Your task to perform on an android device: turn on airplane mode Image 0: 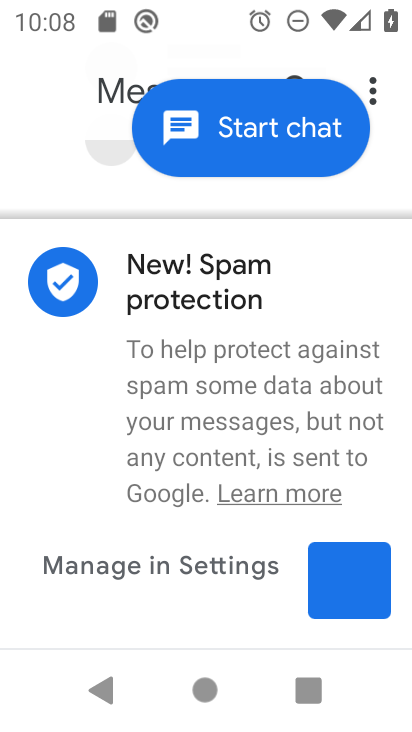
Step 0: press home button
Your task to perform on an android device: turn on airplane mode Image 1: 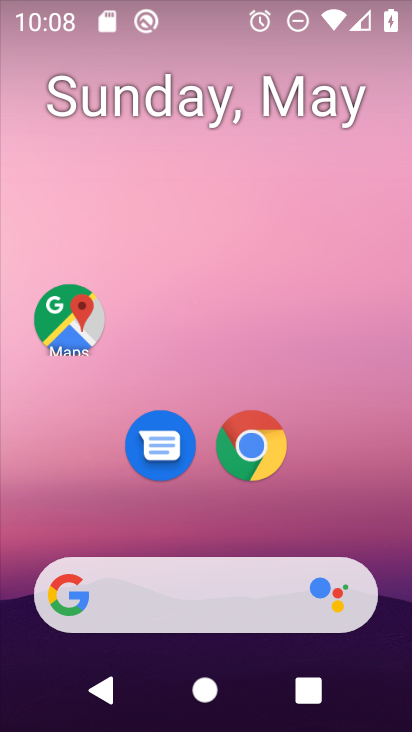
Step 1: drag from (218, 555) to (260, 212)
Your task to perform on an android device: turn on airplane mode Image 2: 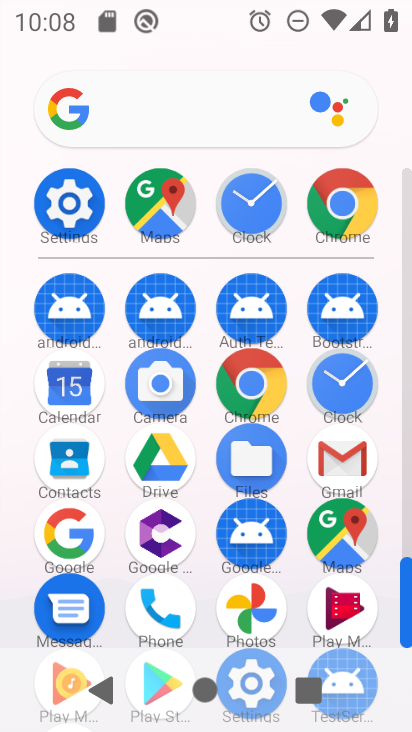
Step 2: click (72, 221)
Your task to perform on an android device: turn on airplane mode Image 3: 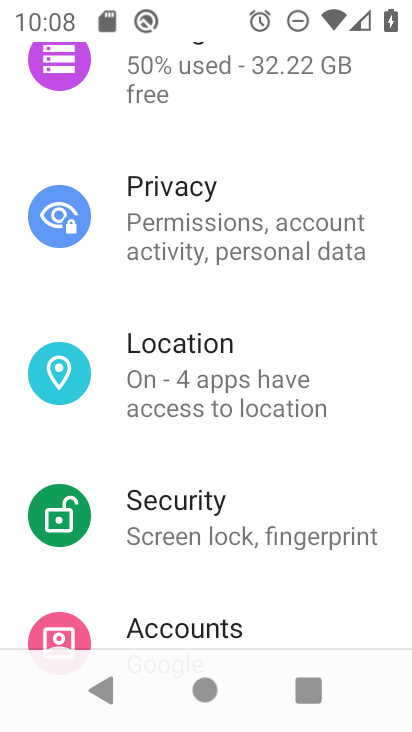
Step 3: drag from (129, 410) to (144, 725)
Your task to perform on an android device: turn on airplane mode Image 4: 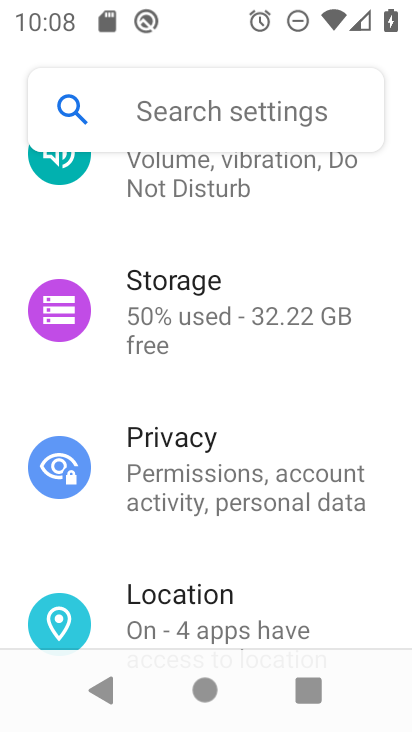
Step 4: drag from (242, 237) to (242, 551)
Your task to perform on an android device: turn on airplane mode Image 5: 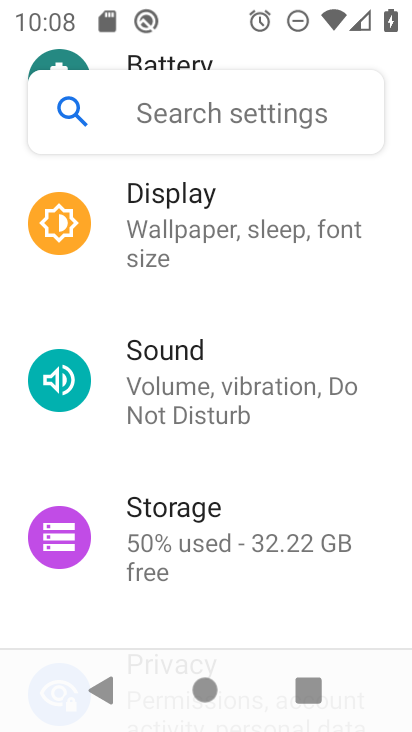
Step 5: drag from (211, 339) to (183, 662)
Your task to perform on an android device: turn on airplane mode Image 6: 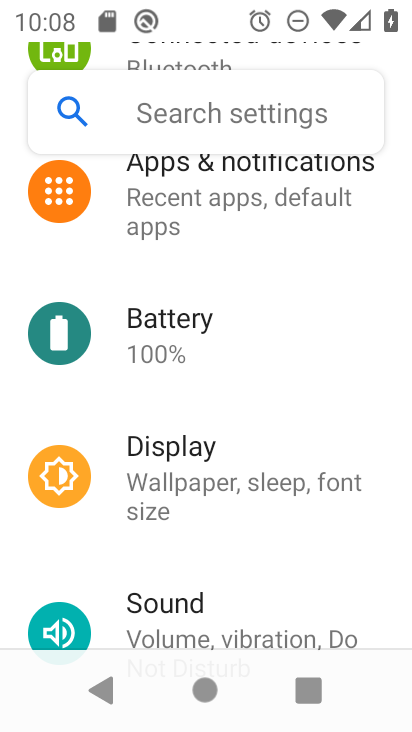
Step 6: drag from (207, 298) to (157, 718)
Your task to perform on an android device: turn on airplane mode Image 7: 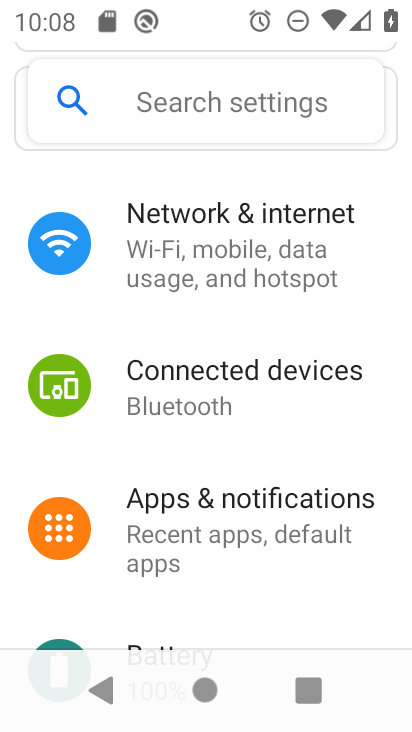
Step 7: click (231, 256)
Your task to perform on an android device: turn on airplane mode Image 8: 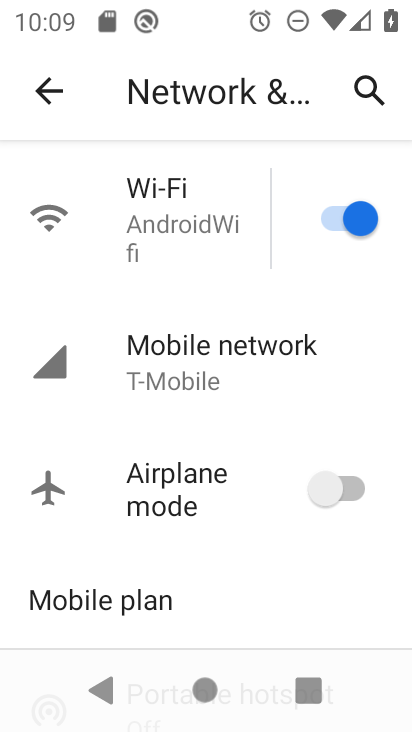
Step 8: click (246, 500)
Your task to perform on an android device: turn on airplane mode Image 9: 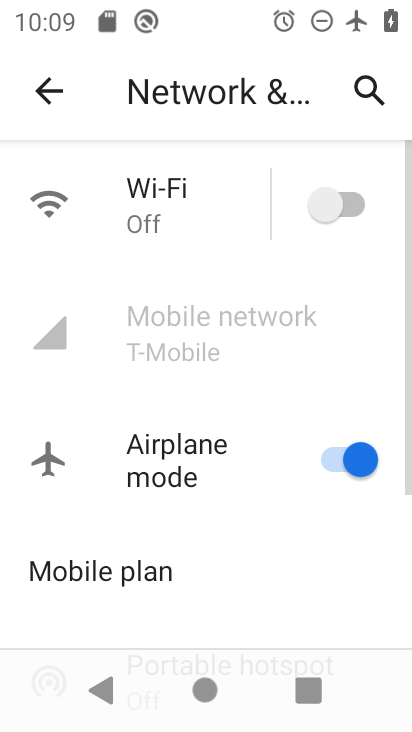
Step 9: task complete